Your task to perform on an android device: change keyboard looks Image 0: 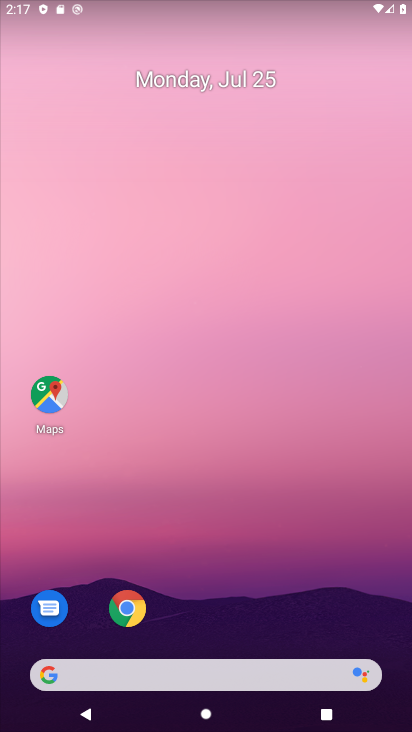
Step 0: drag from (243, 637) to (251, 144)
Your task to perform on an android device: change keyboard looks Image 1: 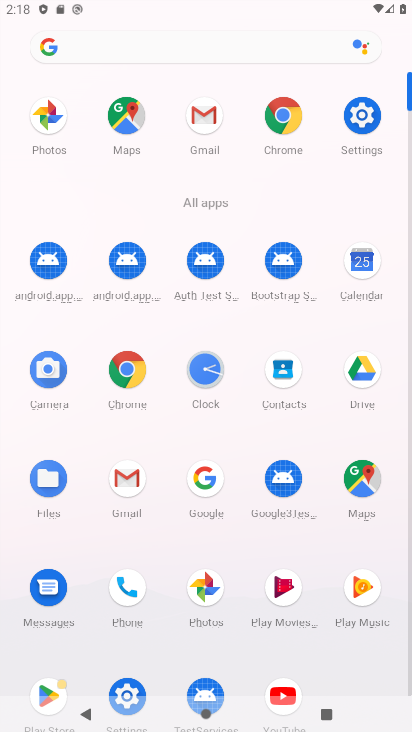
Step 1: click (364, 121)
Your task to perform on an android device: change keyboard looks Image 2: 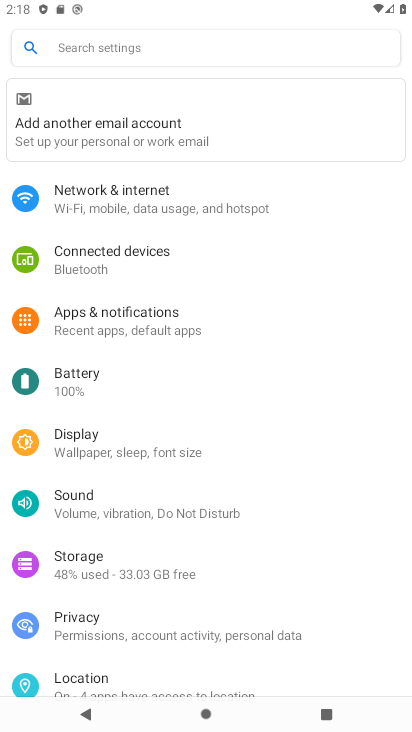
Step 2: drag from (218, 669) to (181, 363)
Your task to perform on an android device: change keyboard looks Image 3: 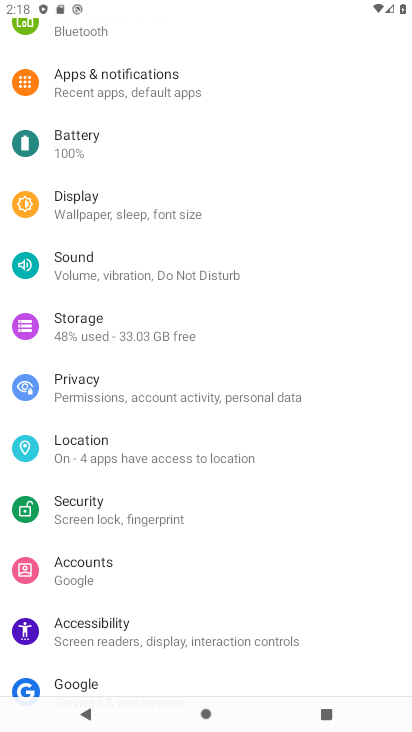
Step 3: drag from (193, 663) to (179, 377)
Your task to perform on an android device: change keyboard looks Image 4: 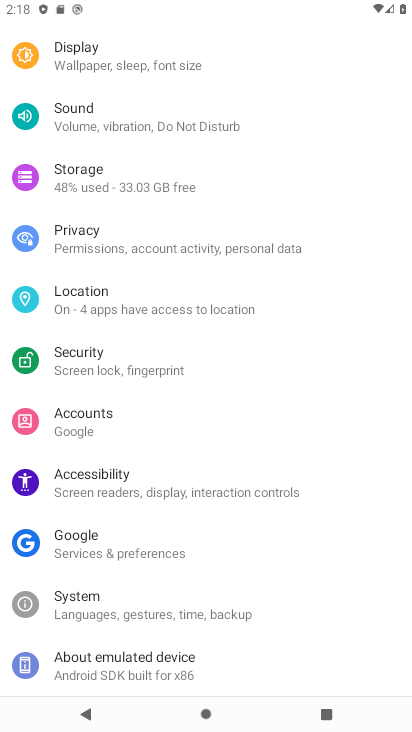
Step 4: click (200, 593)
Your task to perform on an android device: change keyboard looks Image 5: 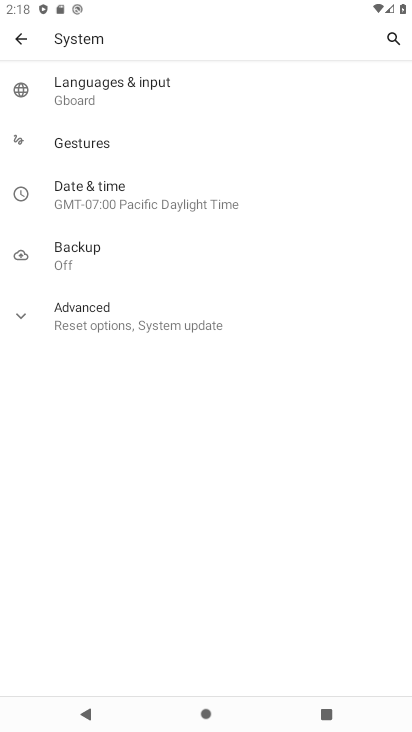
Step 5: click (181, 89)
Your task to perform on an android device: change keyboard looks Image 6: 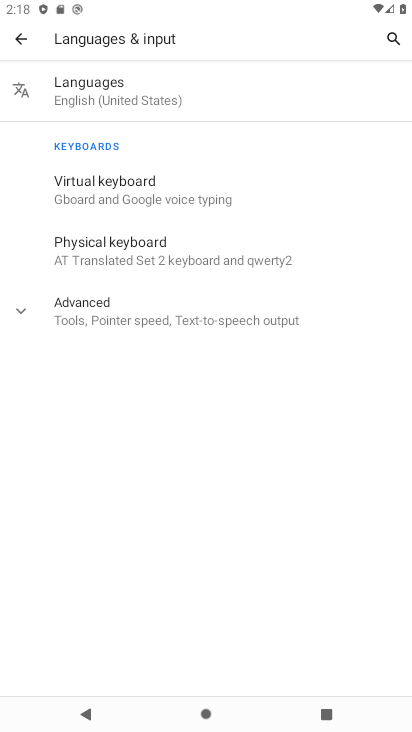
Step 6: click (176, 196)
Your task to perform on an android device: change keyboard looks Image 7: 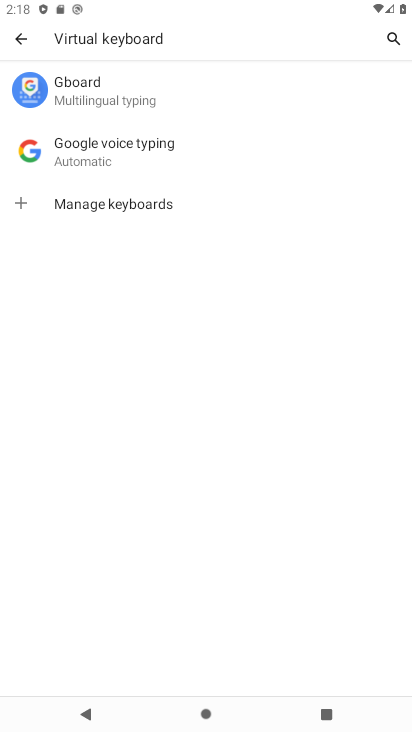
Step 7: click (140, 98)
Your task to perform on an android device: change keyboard looks Image 8: 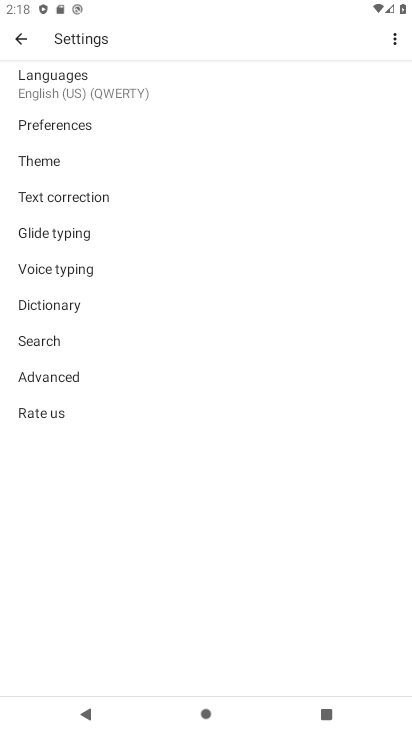
Step 8: click (129, 164)
Your task to perform on an android device: change keyboard looks Image 9: 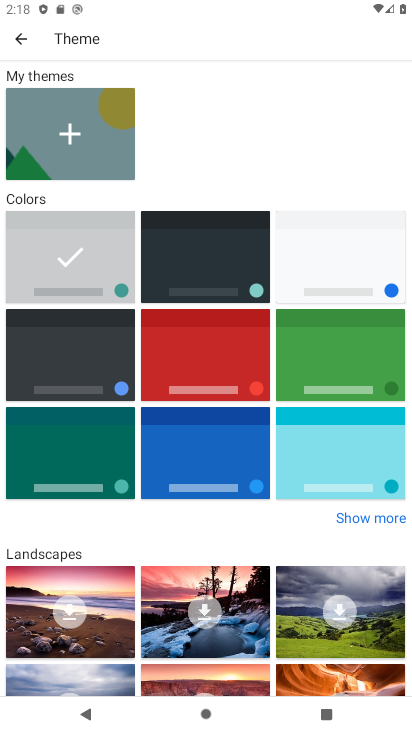
Step 9: click (207, 251)
Your task to perform on an android device: change keyboard looks Image 10: 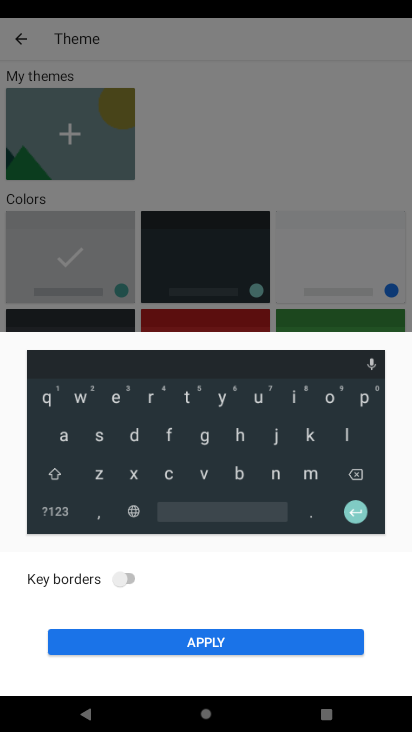
Step 10: click (264, 640)
Your task to perform on an android device: change keyboard looks Image 11: 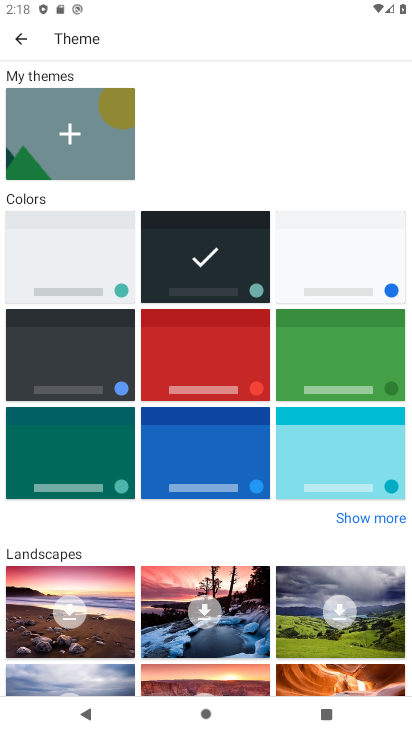
Step 11: task complete